Your task to perform on an android device: Add usb-c to usb-b to the cart on bestbuy, then select checkout. Image 0: 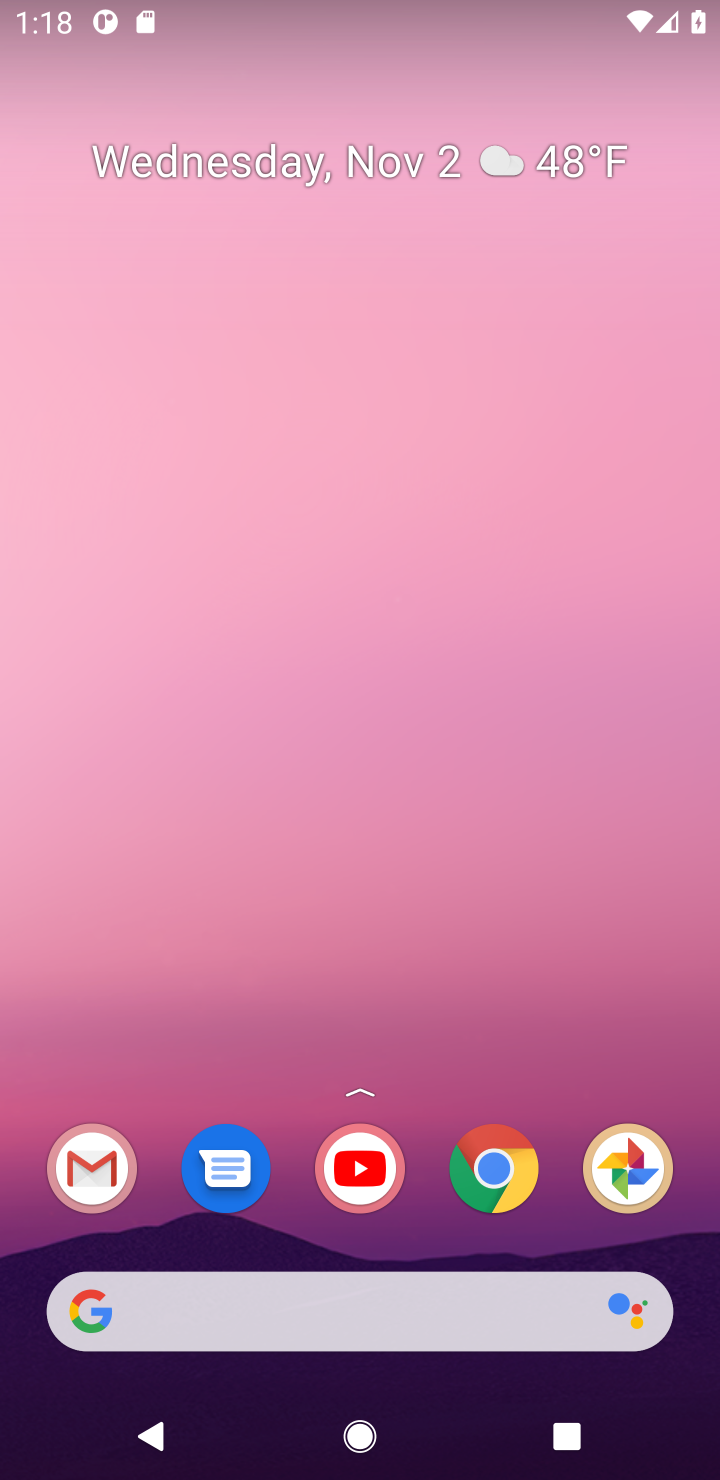
Step 0: click (332, 1300)
Your task to perform on an android device: Add usb-c to usb-b to the cart on bestbuy, then select checkout. Image 1: 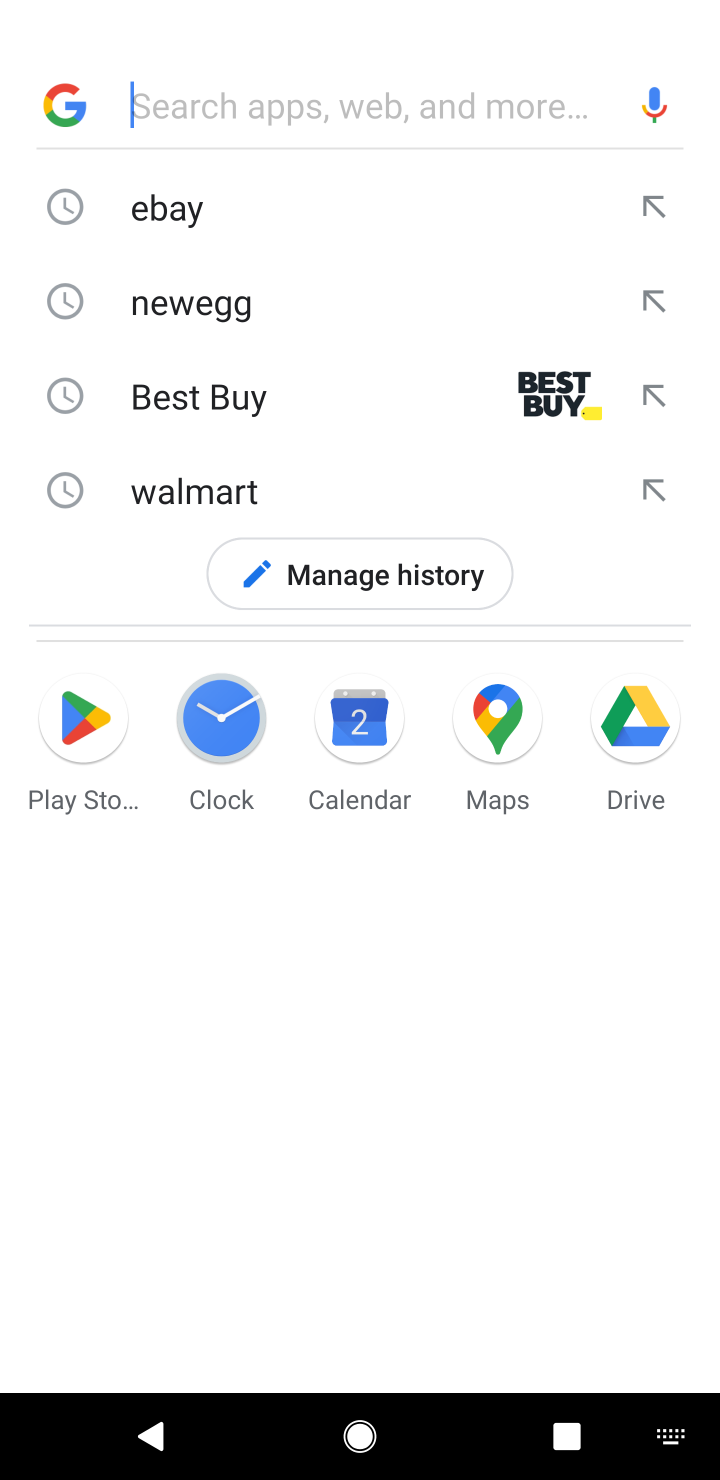
Step 1: click (302, 381)
Your task to perform on an android device: Add usb-c to usb-b to the cart on bestbuy, then select checkout. Image 2: 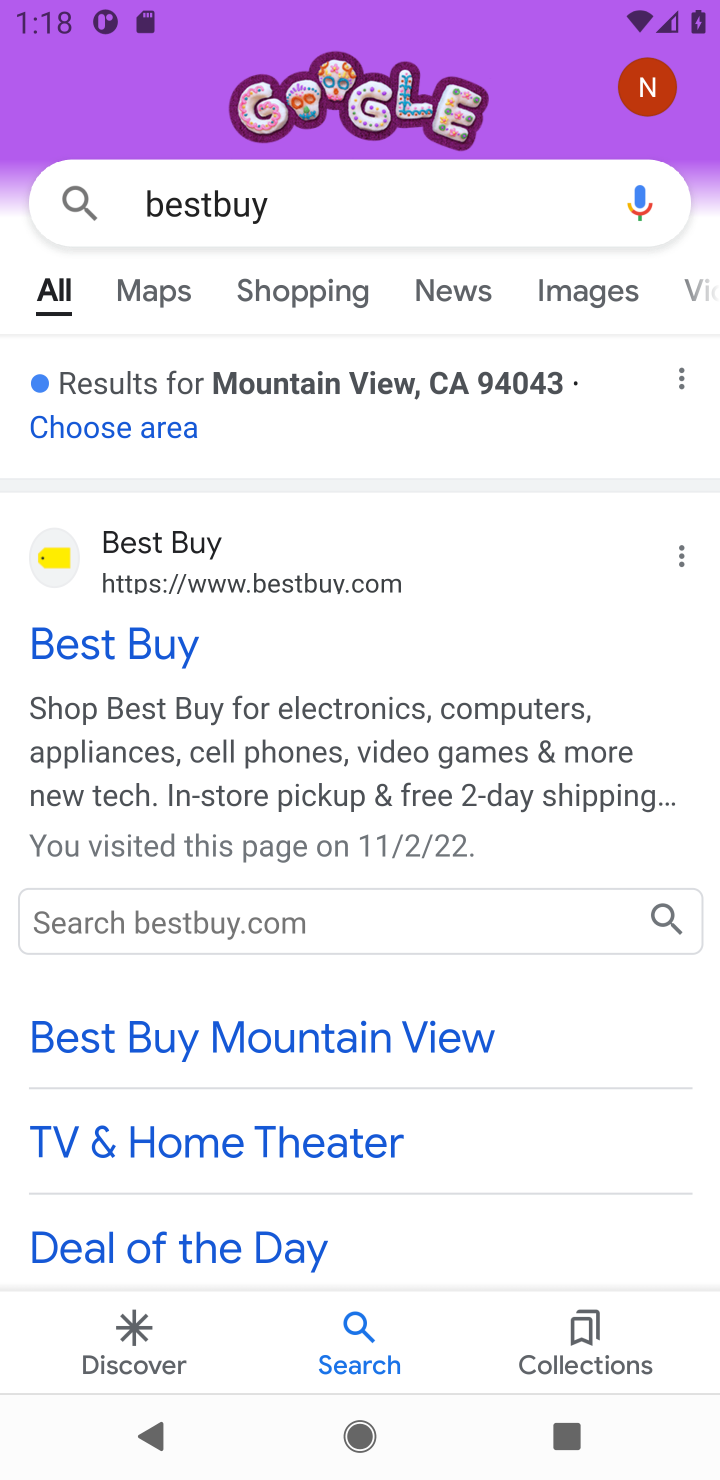
Step 2: click (145, 560)
Your task to perform on an android device: Add usb-c to usb-b to the cart on bestbuy, then select checkout. Image 3: 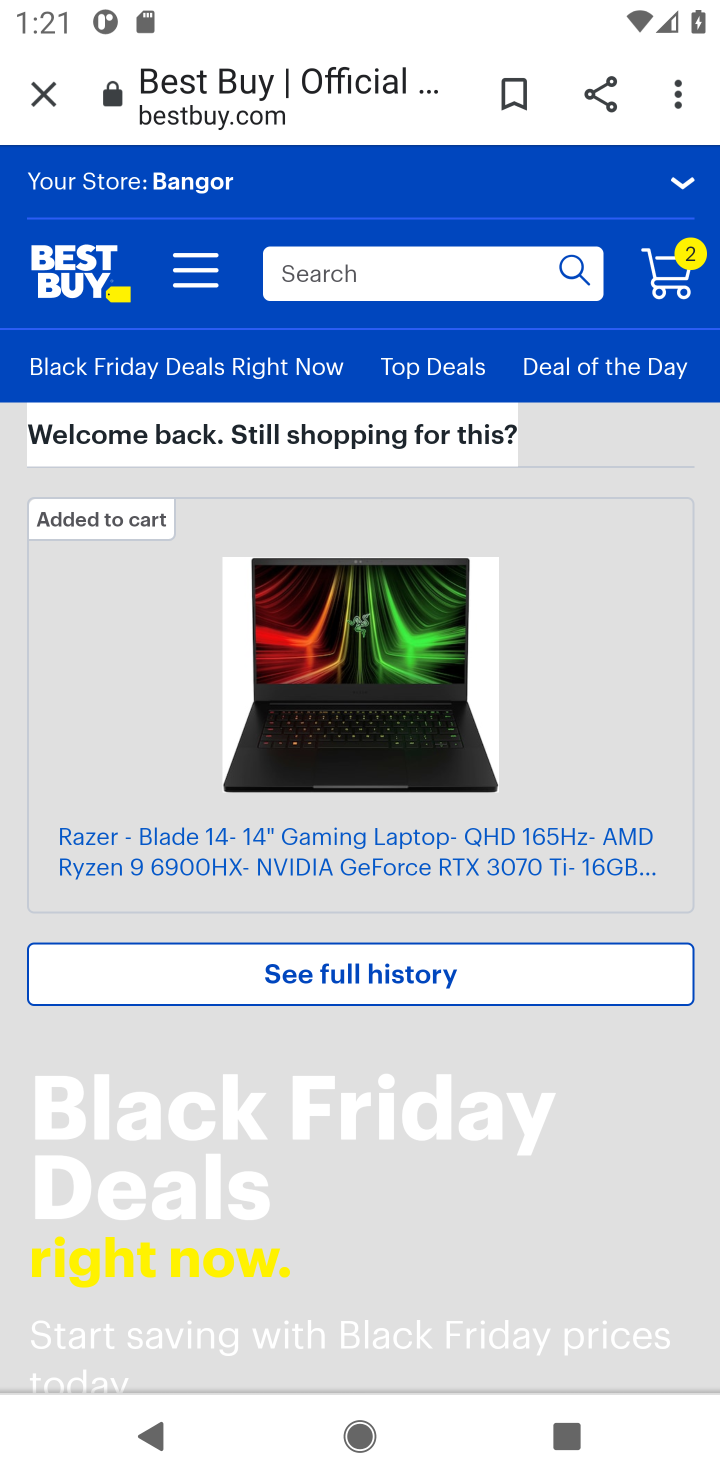
Step 3: click (367, 261)
Your task to perform on an android device: Add usb-c to usb-b to the cart on bestbuy, then select checkout. Image 4: 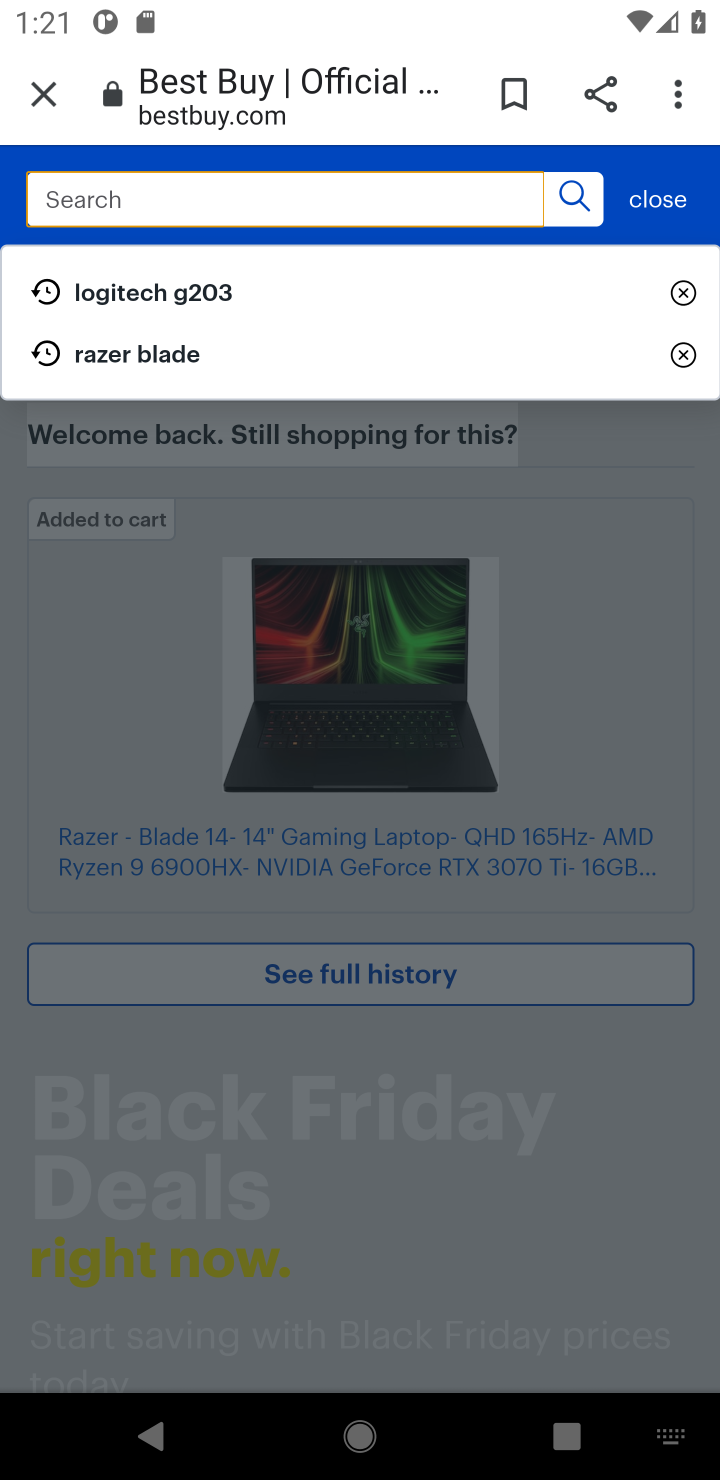
Step 4: type "usb-c to usb-b"
Your task to perform on an android device: Add usb-c to usb-b to the cart on bestbuy, then select checkout. Image 5: 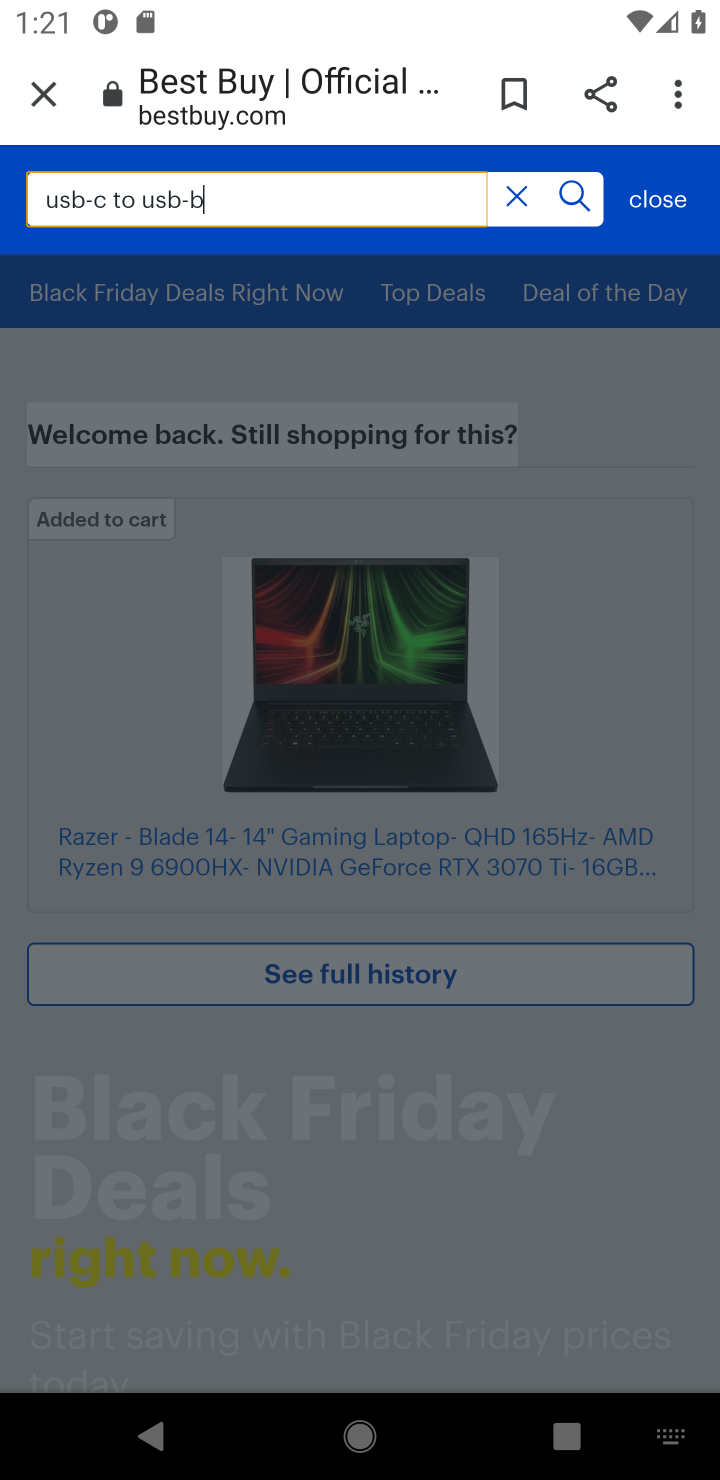
Step 5: click (578, 198)
Your task to perform on an android device: Add usb-c to usb-b to the cart on bestbuy, then select checkout. Image 6: 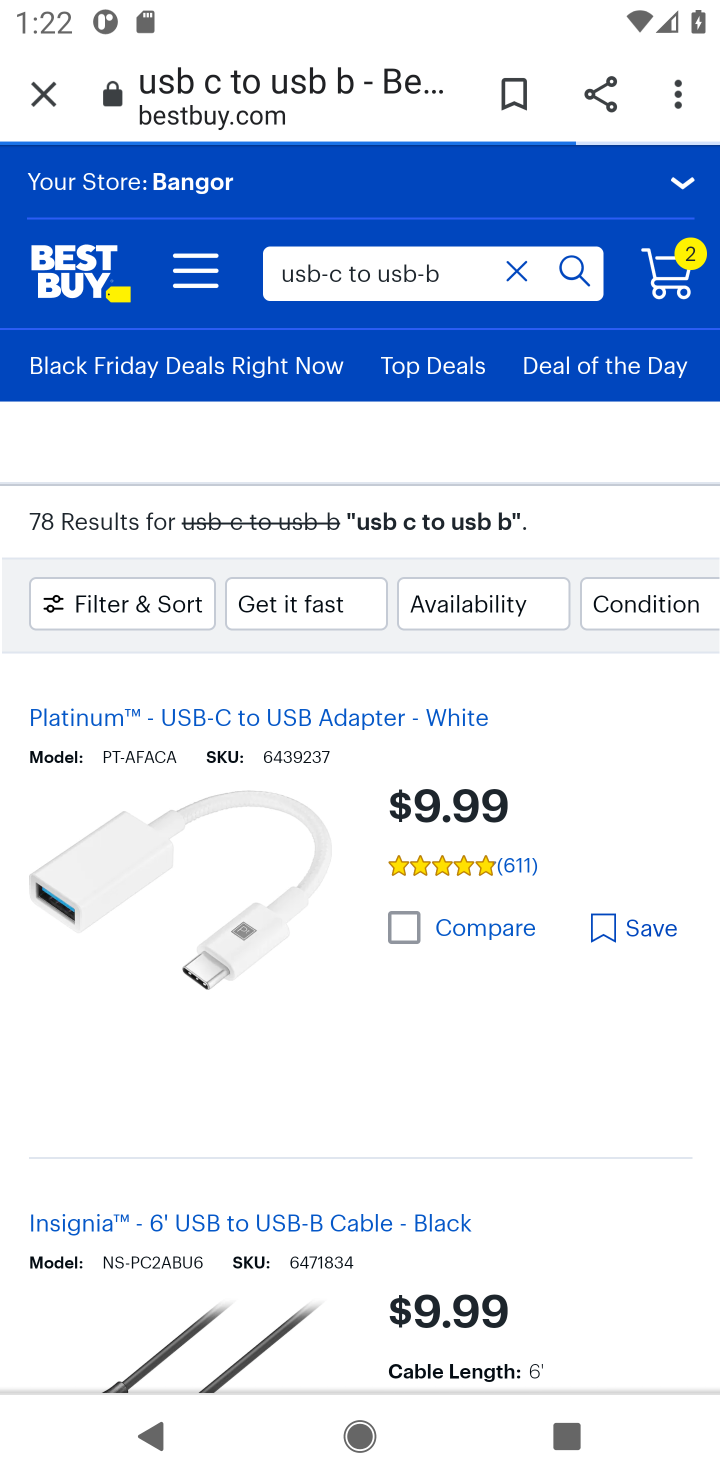
Step 6: click (106, 938)
Your task to perform on an android device: Add usb-c to usb-b to the cart on bestbuy, then select checkout. Image 7: 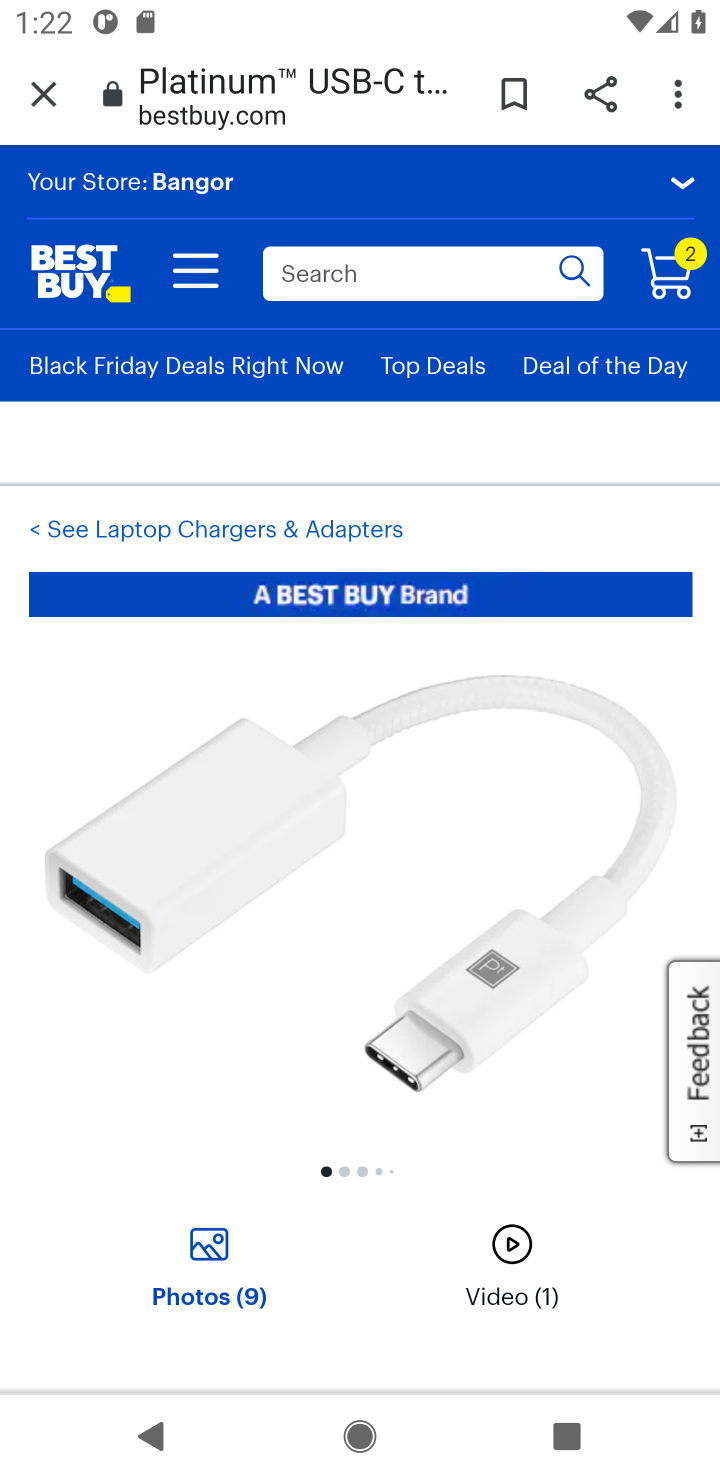
Step 7: drag from (328, 1031) to (363, 763)
Your task to perform on an android device: Add usb-c to usb-b to the cart on bestbuy, then select checkout. Image 8: 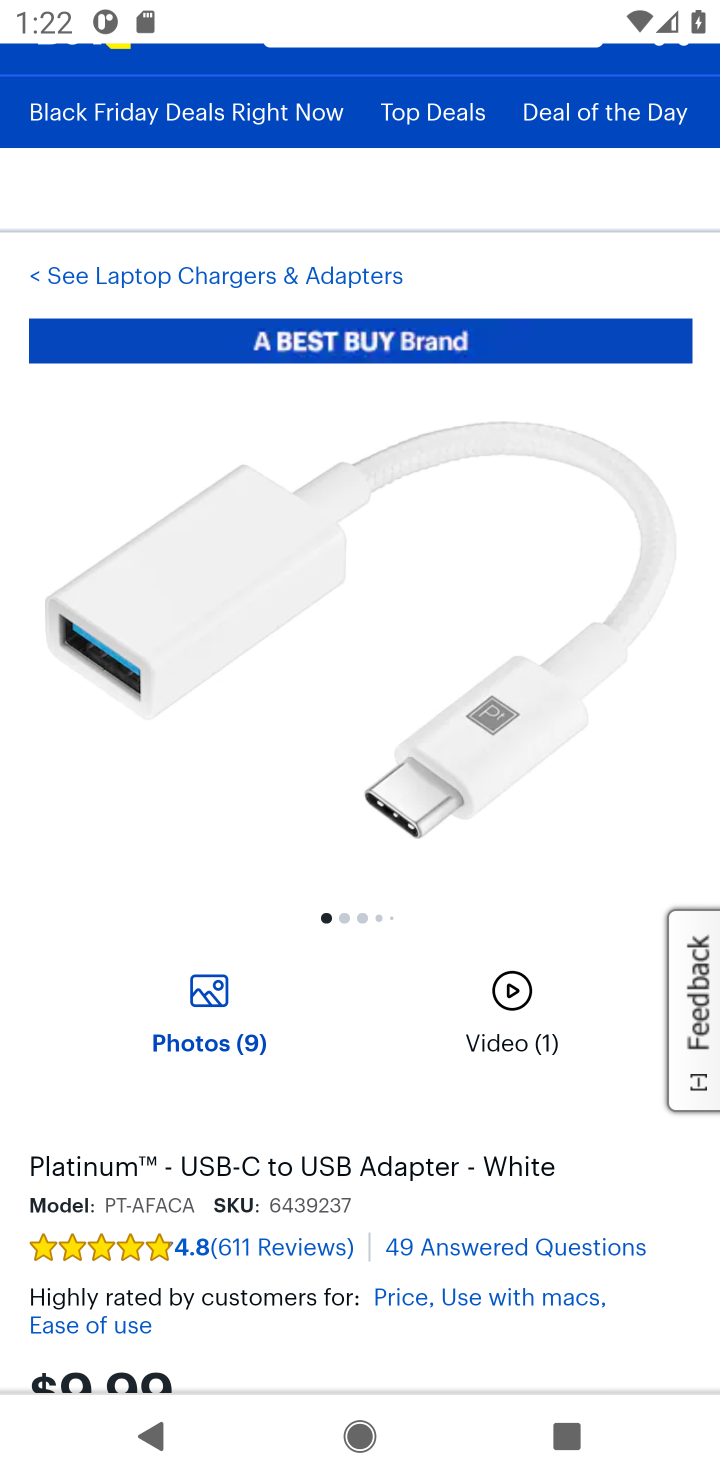
Step 8: drag from (294, 1104) to (326, 806)
Your task to perform on an android device: Add usb-c to usb-b to the cart on bestbuy, then select checkout. Image 9: 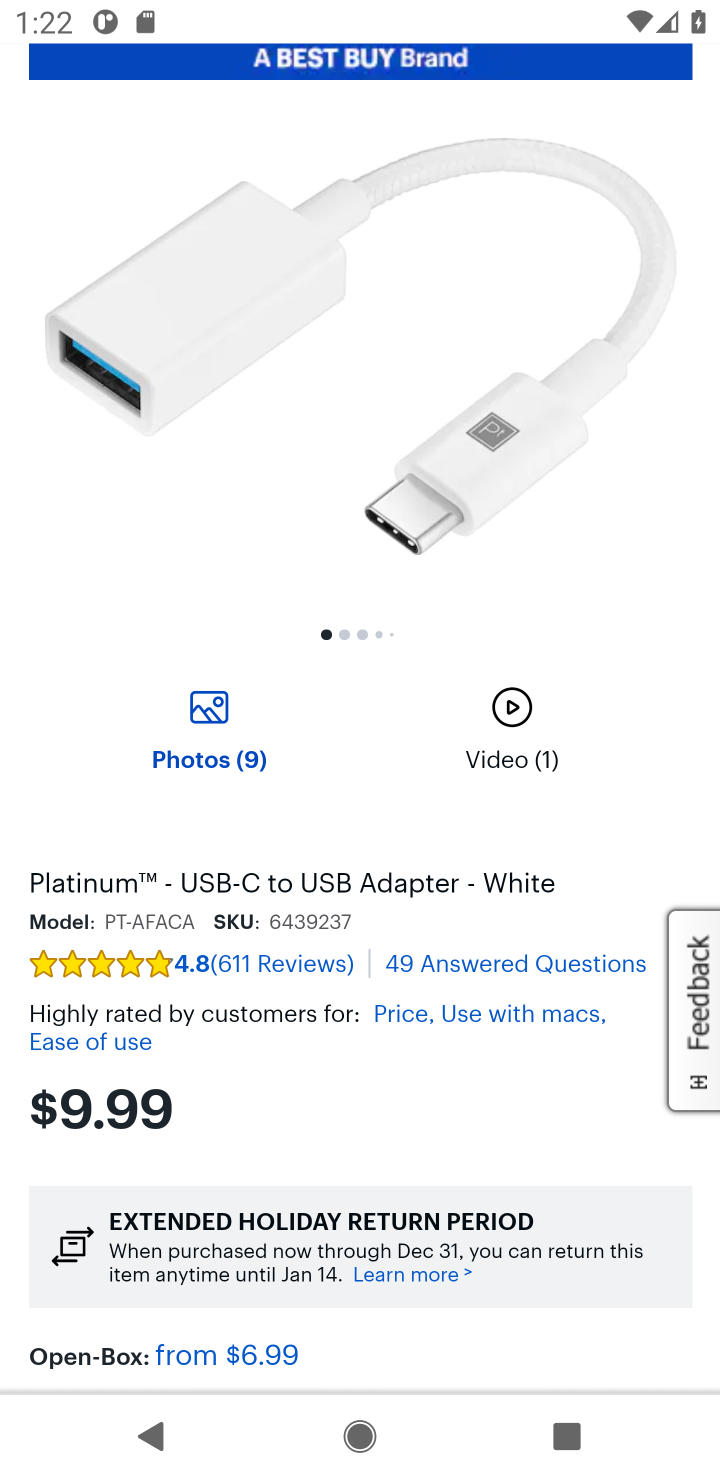
Step 9: drag from (270, 919) to (303, 559)
Your task to perform on an android device: Add usb-c to usb-b to the cart on bestbuy, then select checkout. Image 10: 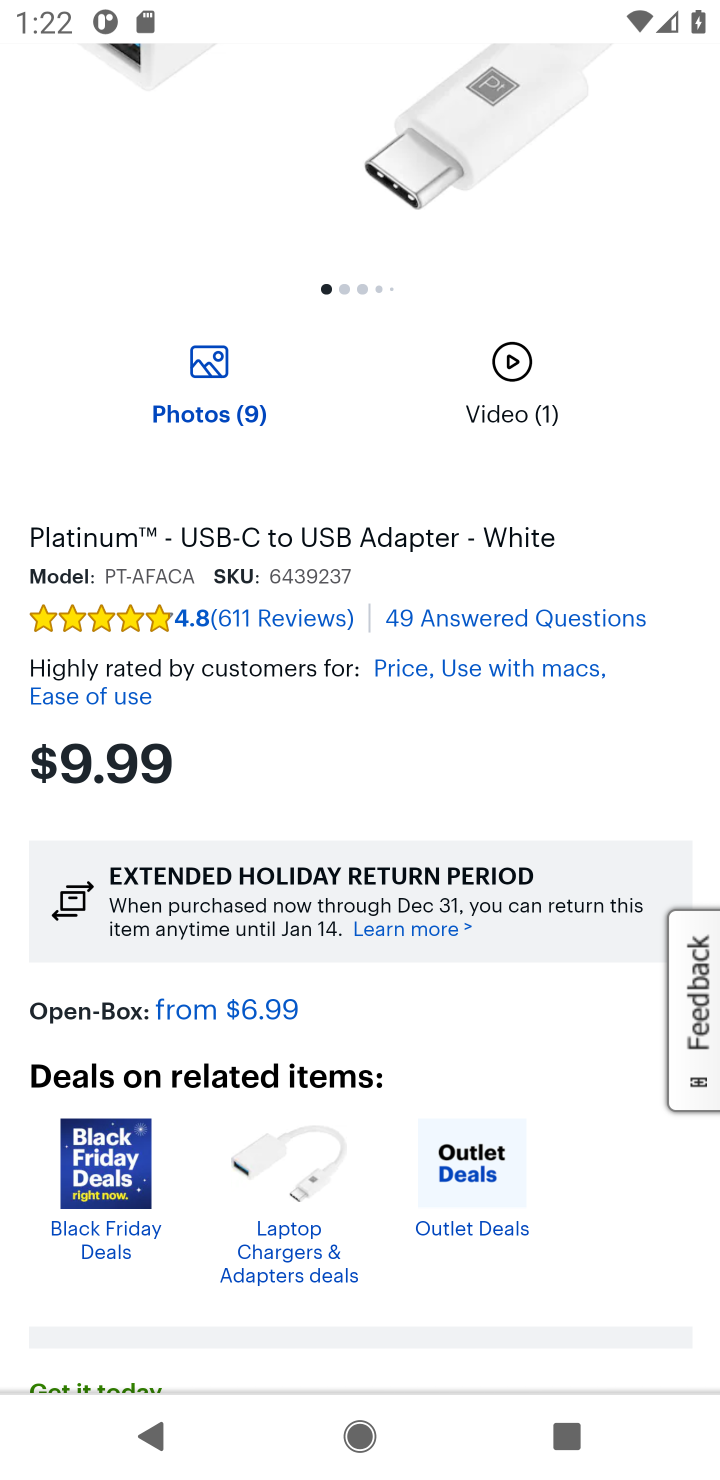
Step 10: drag from (326, 1190) to (350, 755)
Your task to perform on an android device: Add usb-c to usb-b to the cart on bestbuy, then select checkout. Image 11: 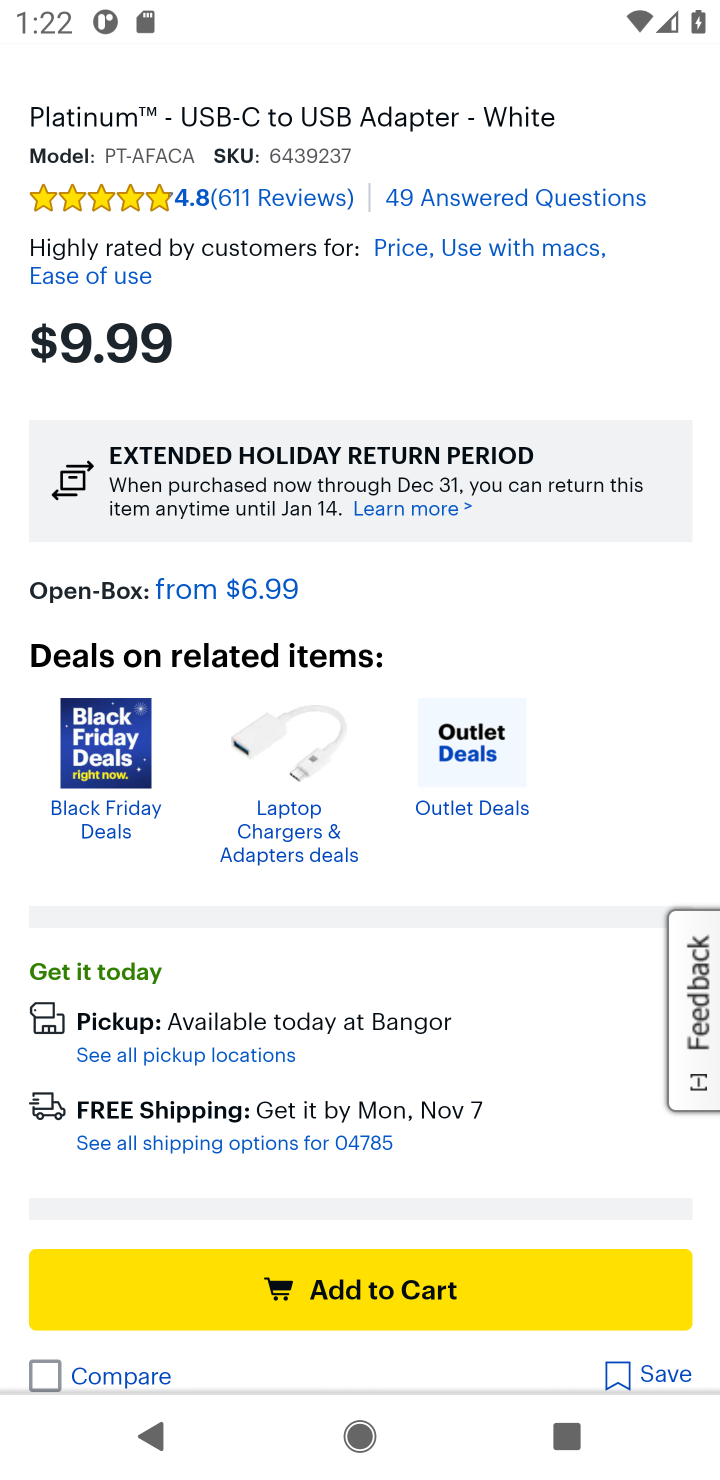
Step 11: click (354, 1299)
Your task to perform on an android device: Add usb-c to usb-b to the cart on bestbuy, then select checkout. Image 12: 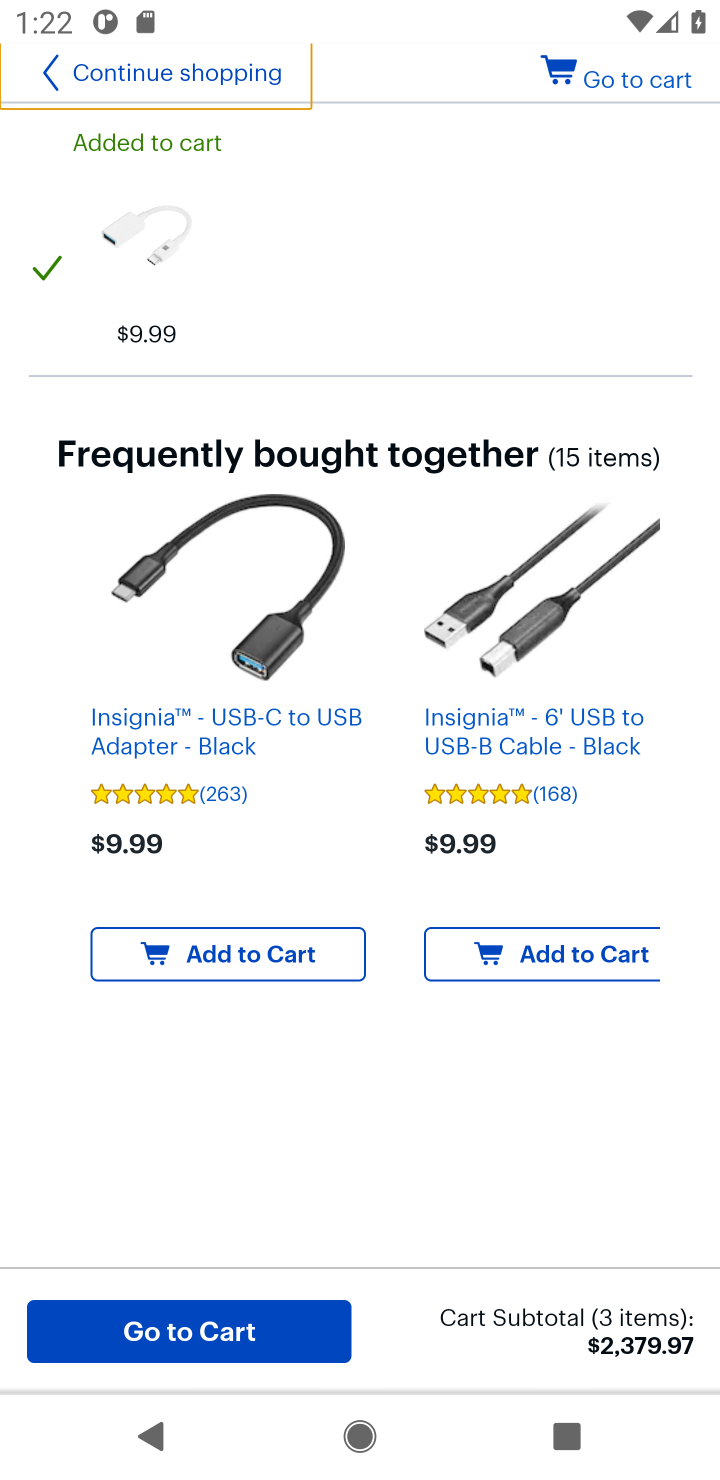
Step 12: click (670, 69)
Your task to perform on an android device: Add usb-c to usb-b to the cart on bestbuy, then select checkout. Image 13: 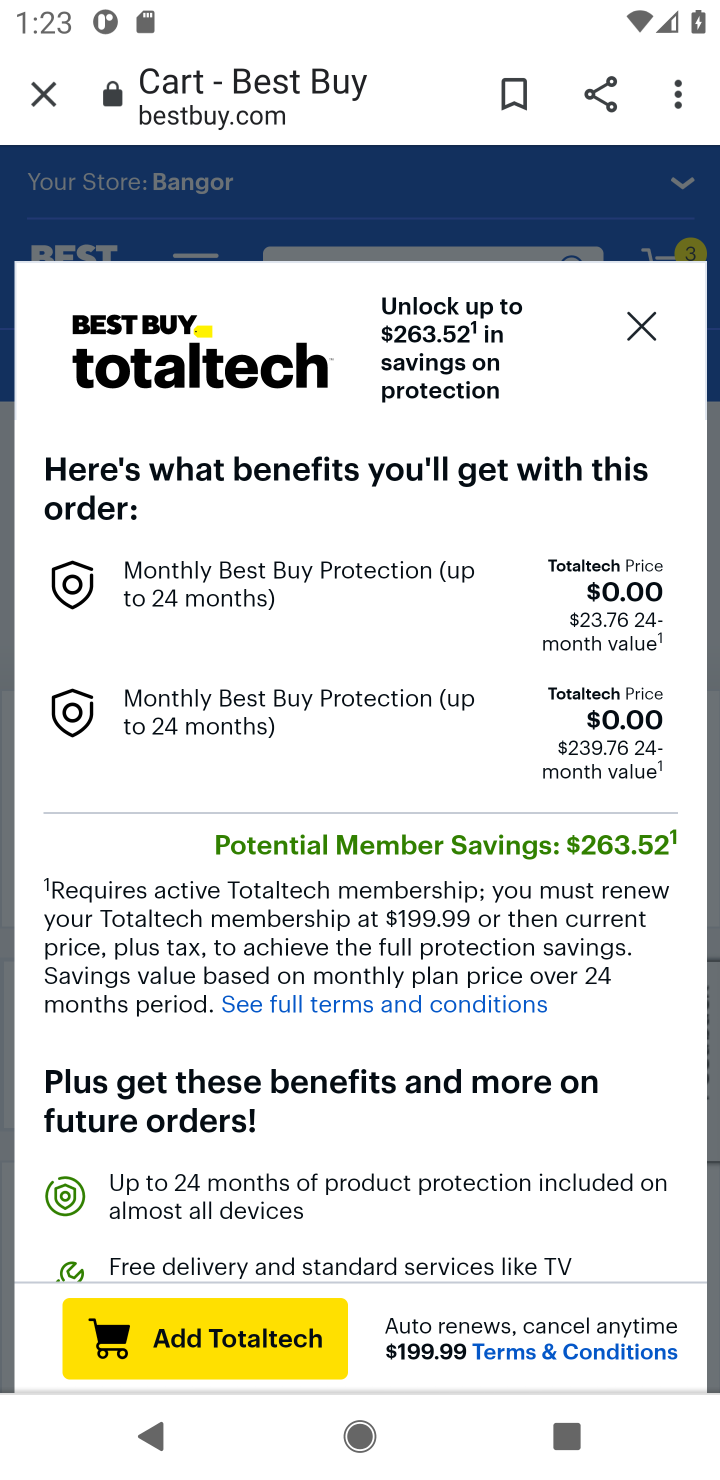
Step 13: click (627, 309)
Your task to perform on an android device: Add usb-c to usb-b to the cart on bestbuy, then select checkout. Image 14: 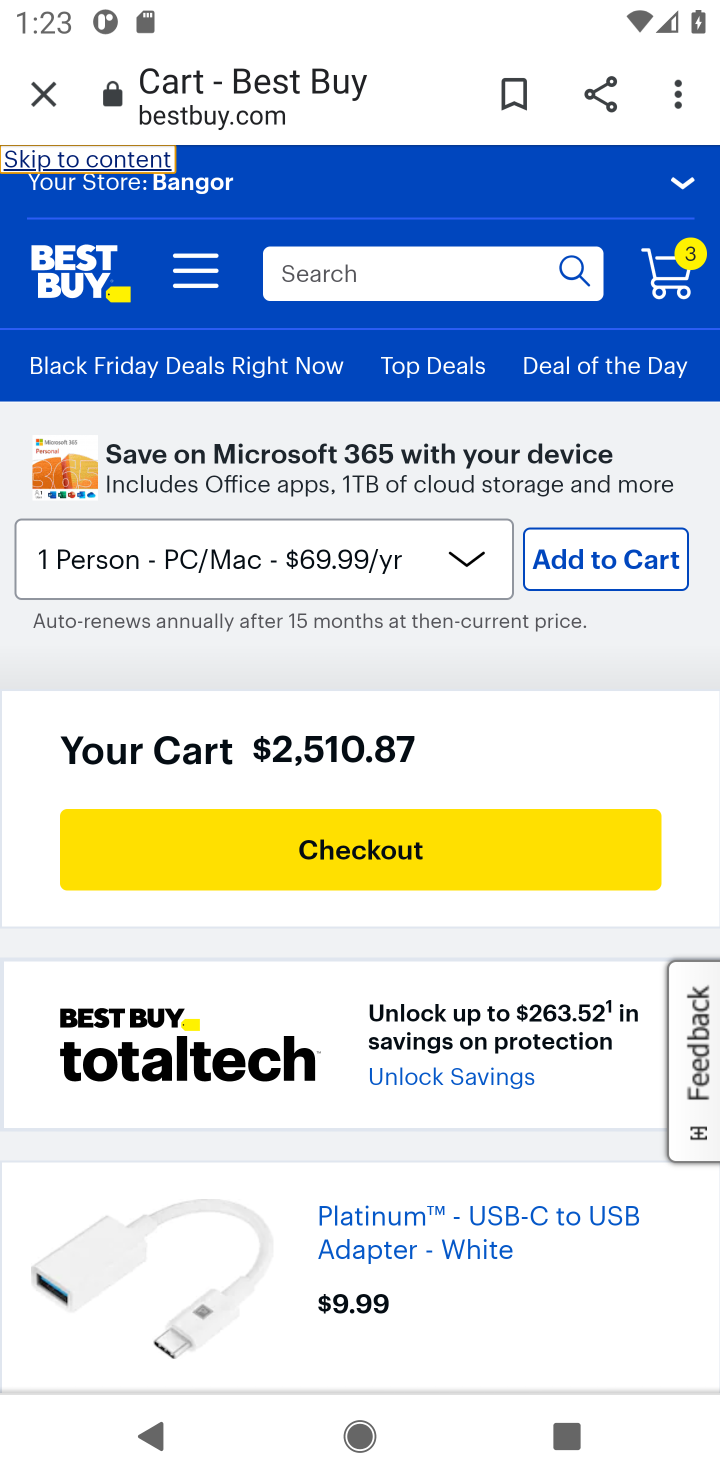
Step 14: click (333, 825)
Your task to perform on an android device: Add usb-c to usb-b to the cart on bestbuy, then select checkout. Image 15: 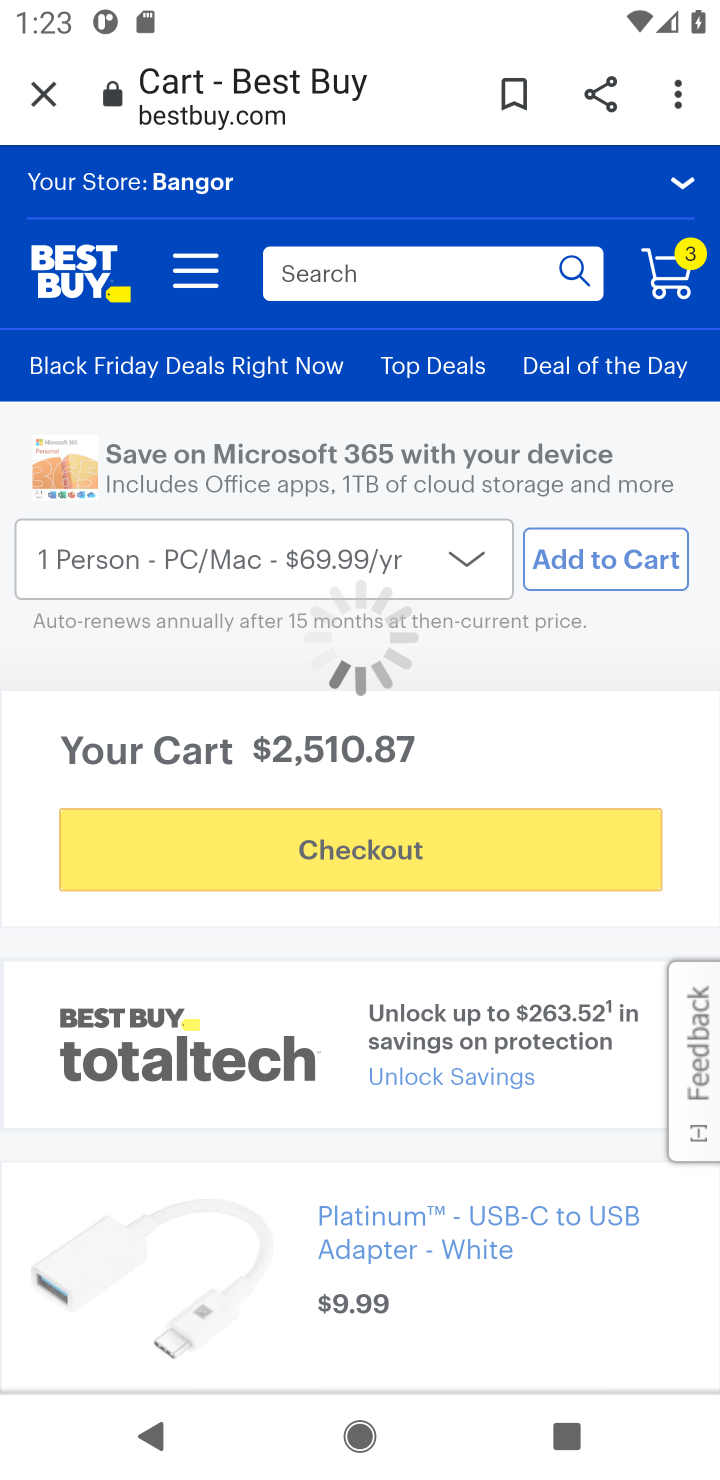
Step 15: task complete